Your task to perform on an android device: turn off notifications in google photos Image 0: 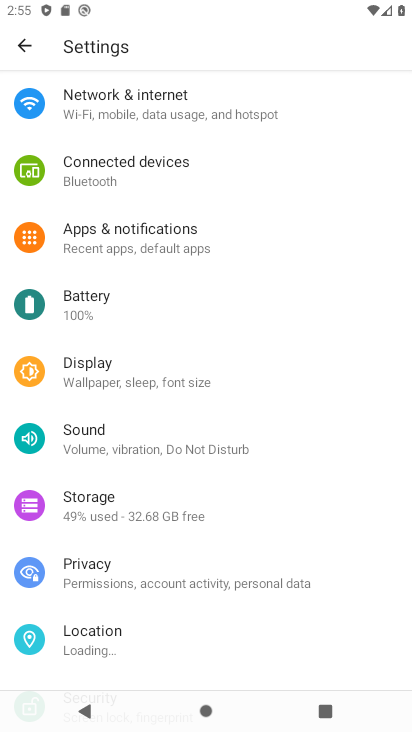
Step 0: press home button
Your task to perform on an android device: turn off notifications in google photos Image 1: 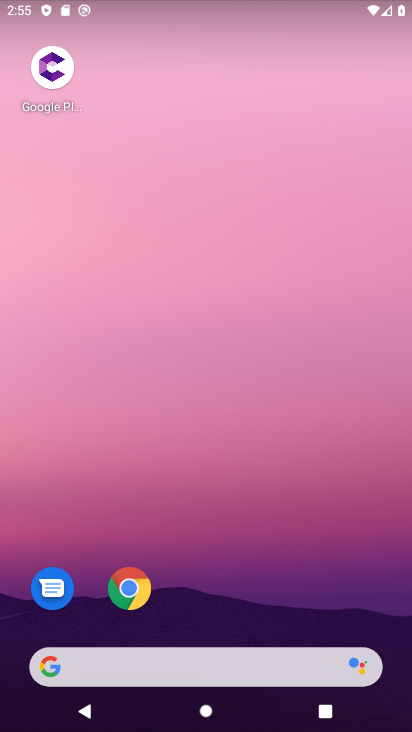
Step 1: drag from (215, 617) to (158, 96)
Your task to perform on an android device: turn off notifications in google photos Image 2: 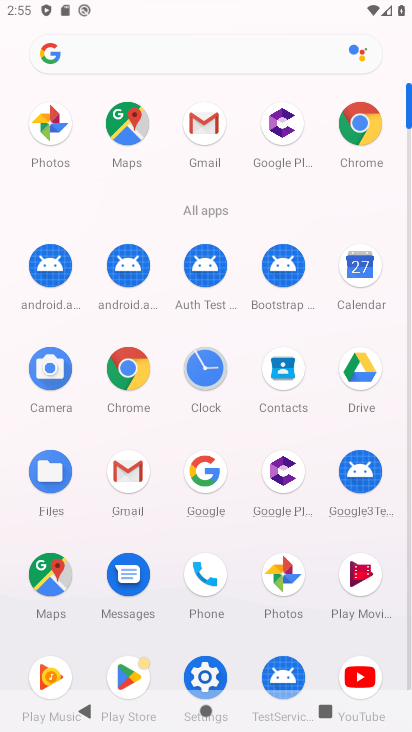
Step 2: click (39, 130)
Your task to perform on an android device: turn off notifications in google photos Image 3: 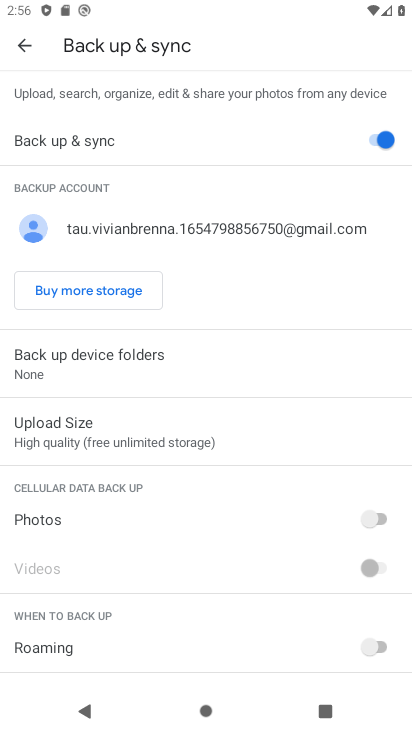
Step 3: click (28, 50)
Your task to perform on an android device: turn off notifications in google photos Image 4: 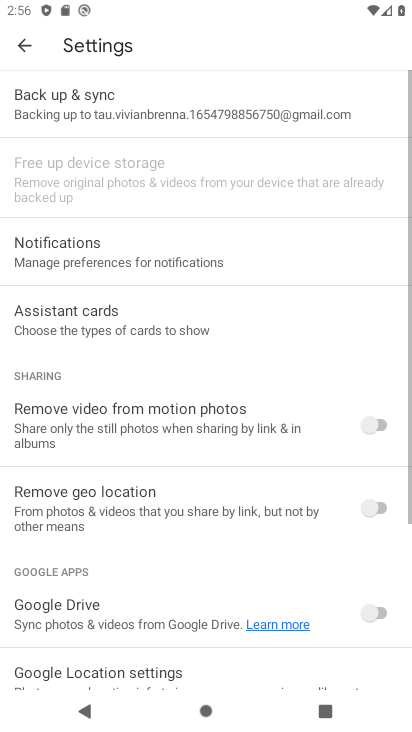
Step 4: click (107, 250)
Your task to perform on an android device: turn off notifications in google photos Image 5: 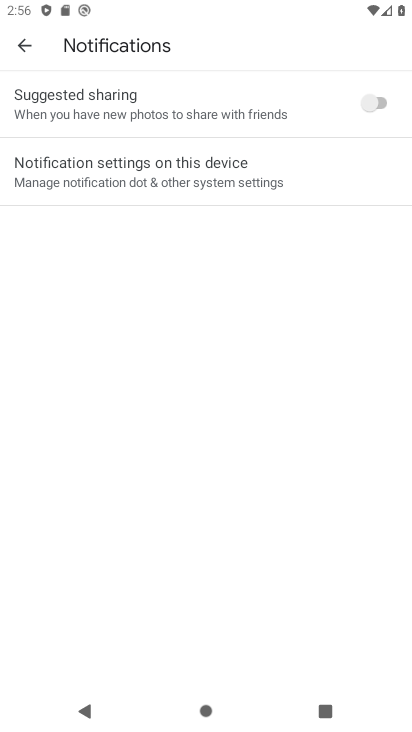
Step 5: click (336, 187)
Your task to perform on an android device: turn off notifications in google photos Image 6: 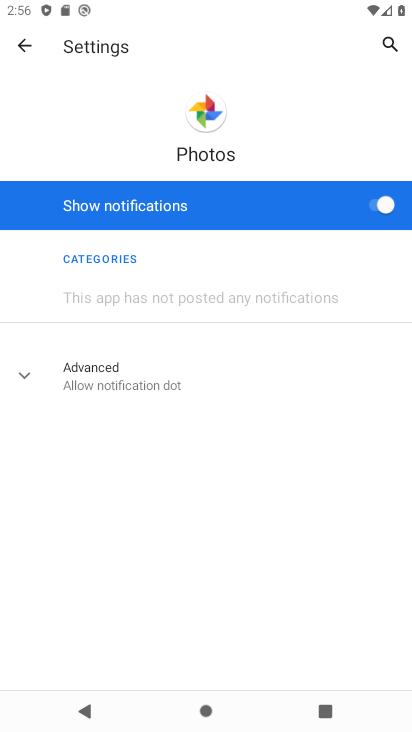
Step 6: click (384, 206)
Your task to perform on an android device: turn off notifications in google photos Image 7: 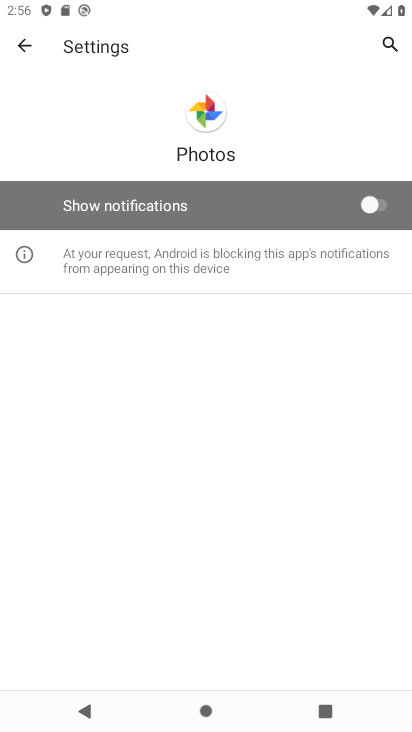
Step 7: task complete